Your task to perform on an android device: turn on translation in the chrome app Image 0: 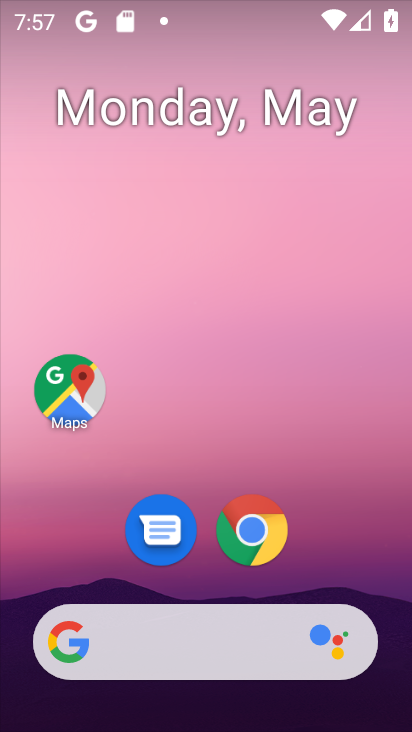
Step 0: click (261, 532)
Your task to perform on an android device: turn on translation in the chrome app Image 1: 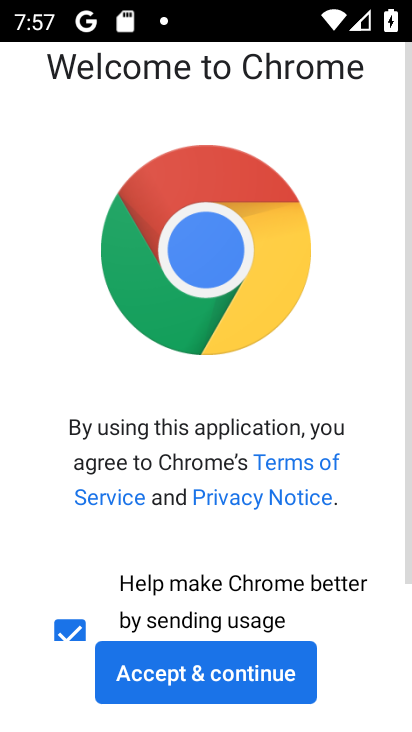
Step 1: click (218, 688)
Your task to perform on an android device: turn on translation in the chrome app Image 2: 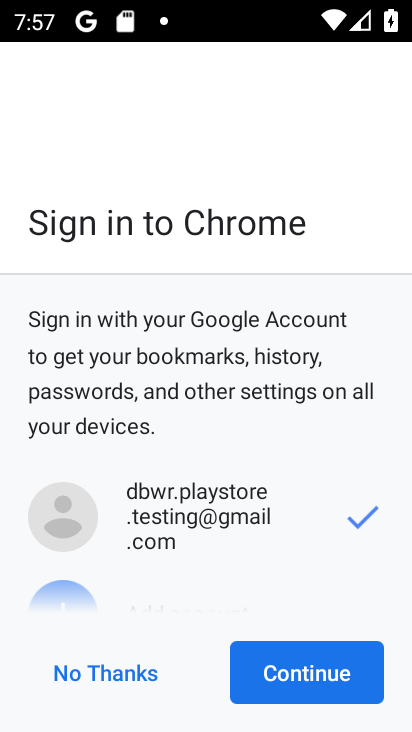
Step 2: click (343, 675)
Your task to perform on an android device: turn on translation in the chrome app Image 3: 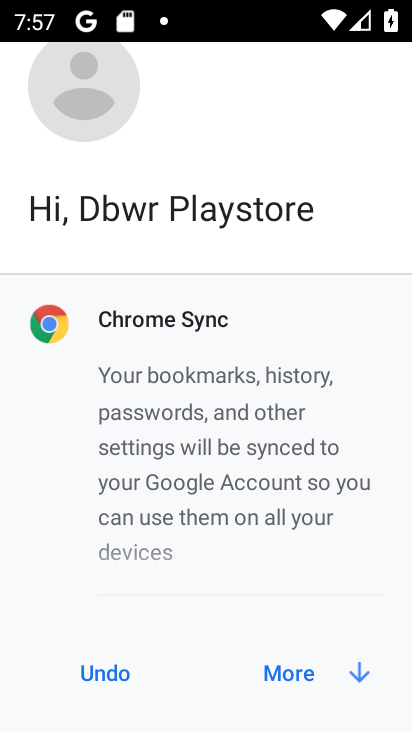
Step 3: click (294, 665)
Your task to perform on an android device: turn on translation in the chrome app Image 4: 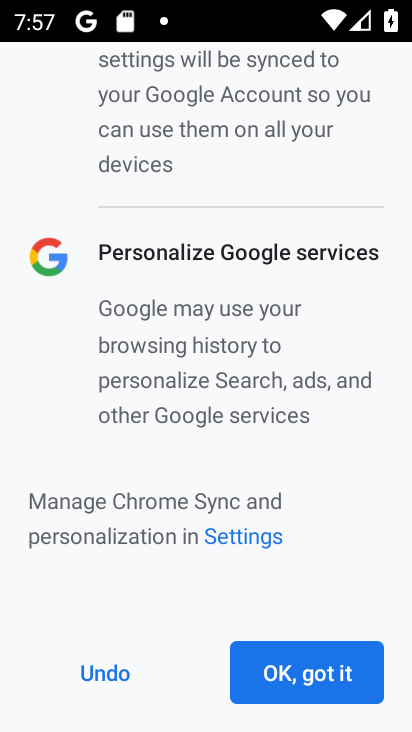
Step 4: click (294, 665)
Your task to perform on an android device: turn on translation in the chrome app Image 5: 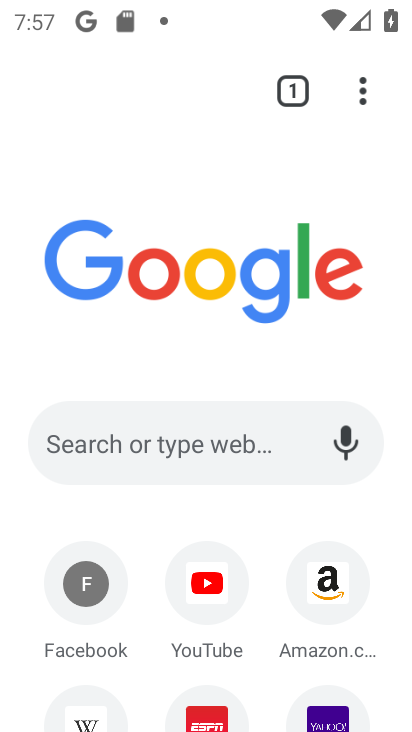
Step 5: click (353, 88)
Your task to perform on an android device: turn on translation in the chrome app Image 6: 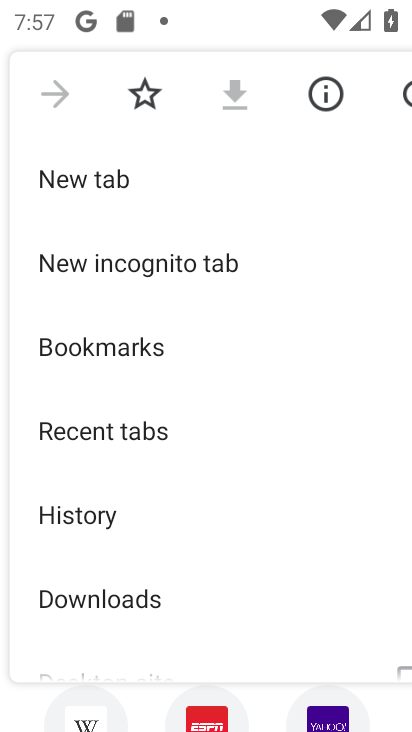
Step 6: drag from (150, 561) to (190, 147)
Your task to perform on an android device: turn on translation in the chrome app Image 7: 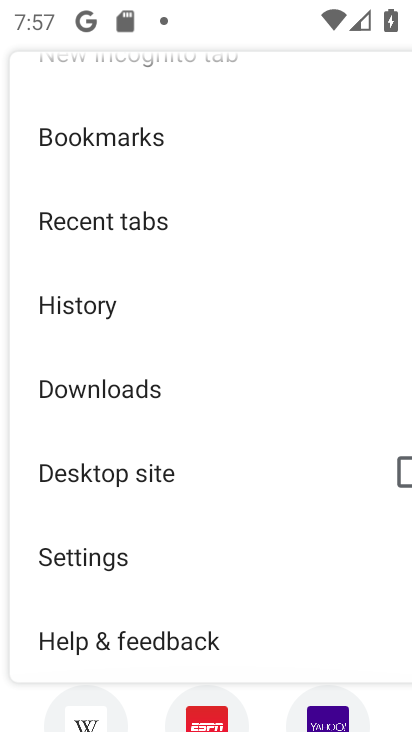
Step 7: click (89, 564)
Your task to perform on an android device: turn on translation in the chrome app Image 8: 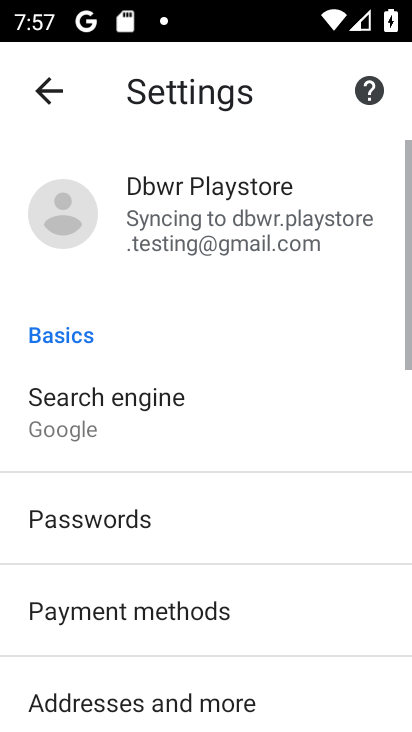
Step 8: drag from (216, 544) to (284, 147)
Your task to perform on an android device: turn on translation in the chrome app Image 9: 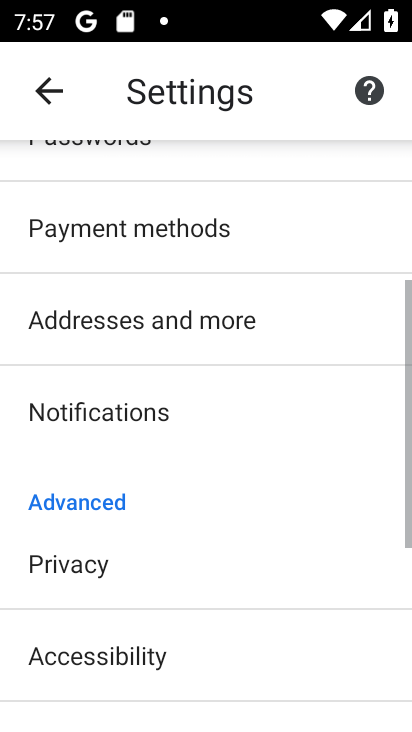
Step 9: drag from (181, 648) to (155, 213)
Your task to perform on an android device: turn on translation in the chrome app Image 10: 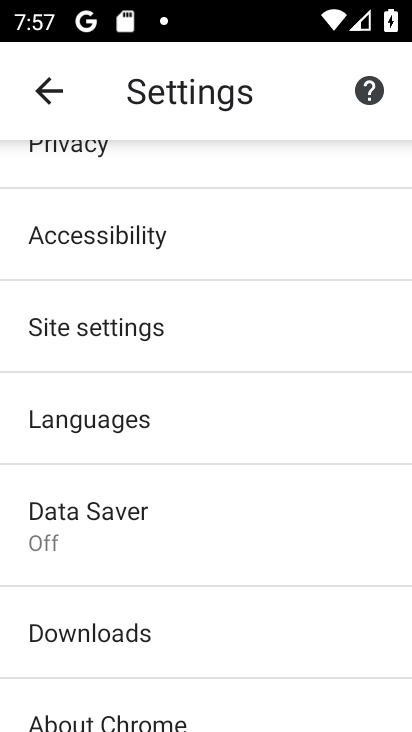
Step 10: click (70, 436)
Your task to perform on an android device: turn on translation in the chrome app Image 11: 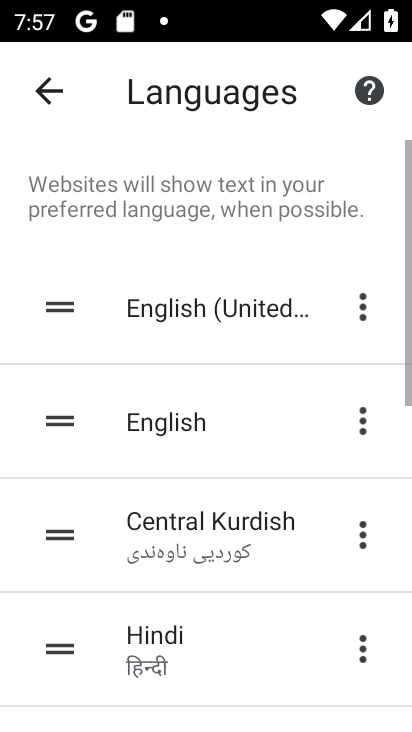
Step 11: drag from (303, 612) to (317, 99)
Your task to perform on an android device: turn on translation in the chrome app Image 12: 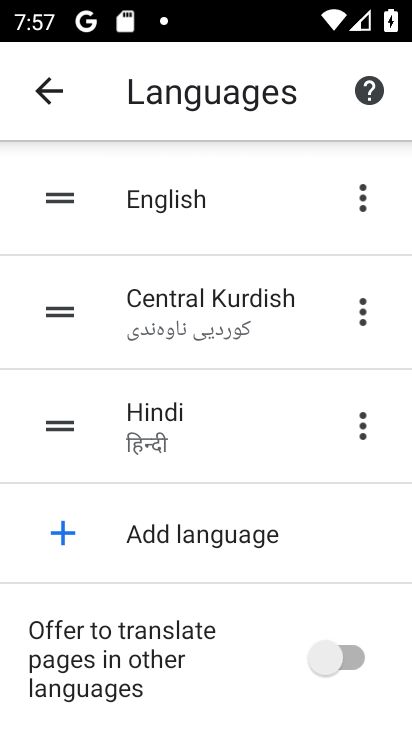
Step 12: click (341, 653)
Your task to perform on an android device: turn on translation in the chrome app Image 13: 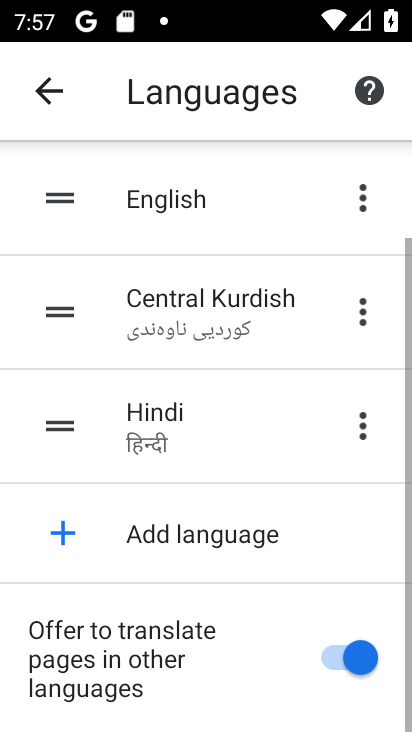
Step 13: task complete